Your task to perform on an android device: Open wifi settings Image 0: 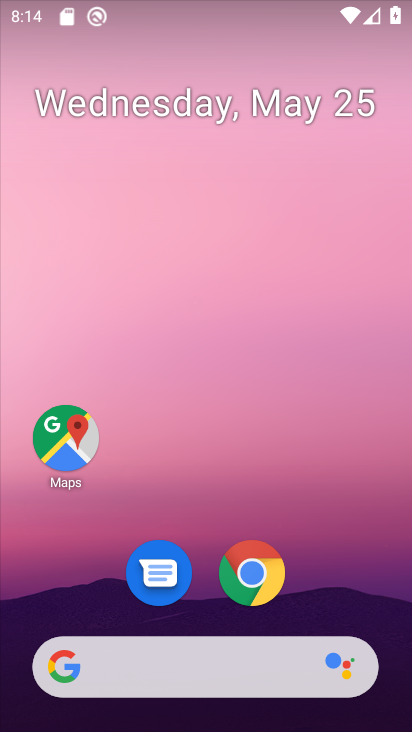
Step 0: drag from (381, 714) to (310, 269)
Your task to perform on an android device: Open wifi settings Image 1: 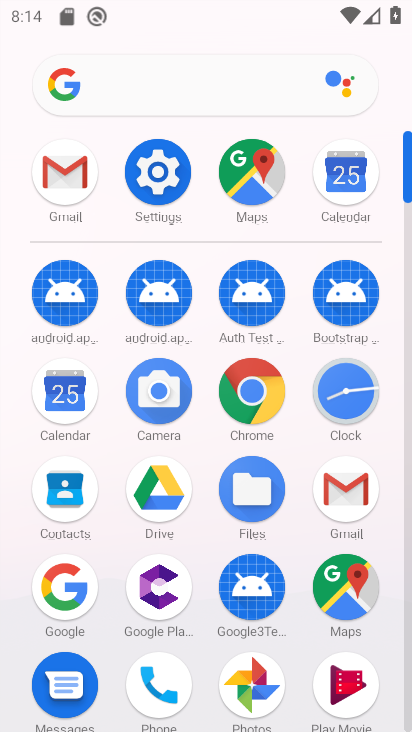
Step 1: click (162, 165)
Your task to perform on an android device: Open wifi settings Image 2: 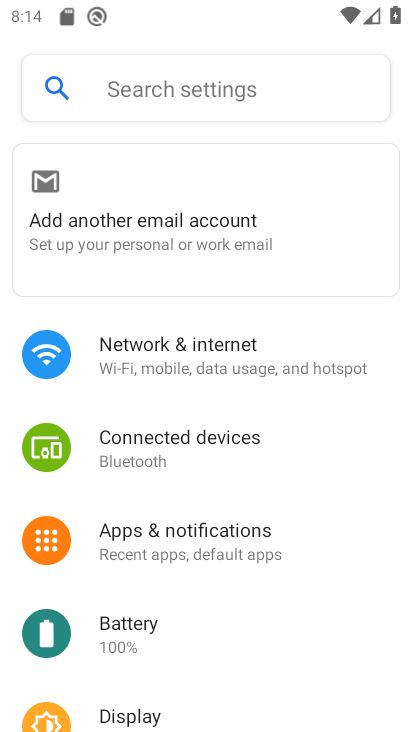
Step 2: drag from (221, 697) to (234, 401)
Your task to perform on an android device: Open wifi settings Image 3: 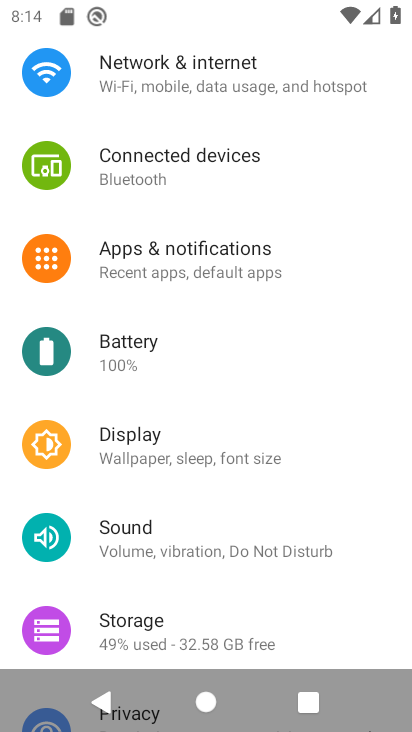
Step 3: drag from (228, 633) to (239, 369)
Your task to perform on an android device: Open wifi settings Image 4: 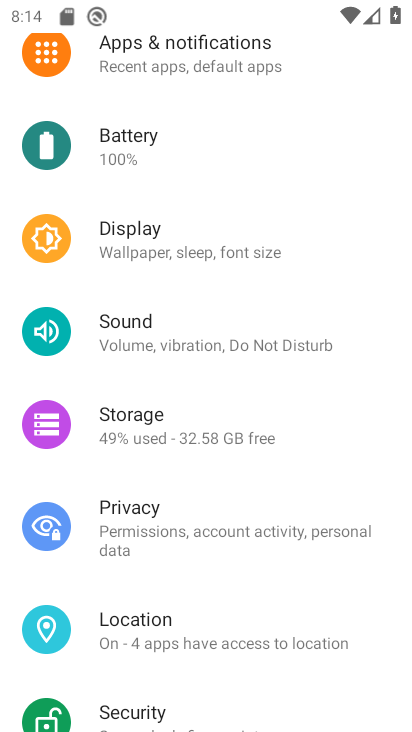
Step 4: drag from (287, 192) to (278, 579)
Your task to perform on an android device: Open wifi settings Image 5: 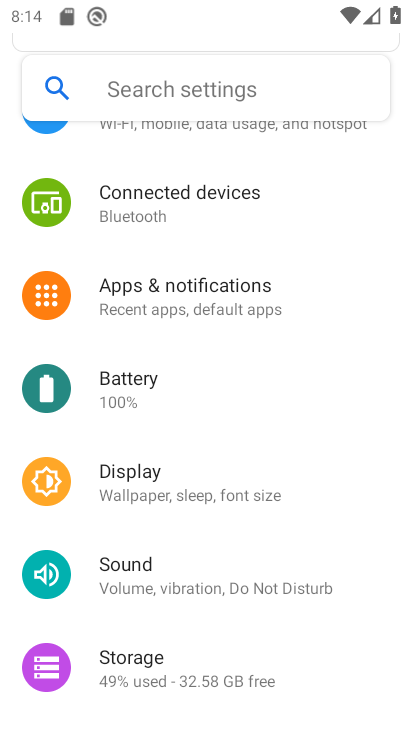
Step 5: drag from (306, 191) to (324, 506)
Your task to perform on an android device: Open wifi settings Image 6: 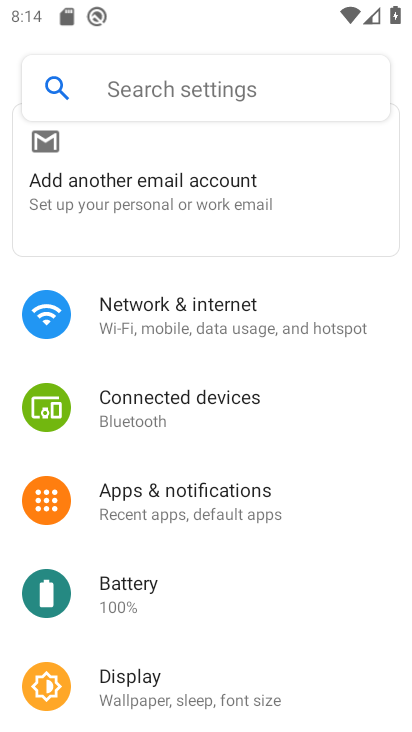
Step 6: click (128, 311)
Your task to perform on an android device: Open wifi settings Image 7: 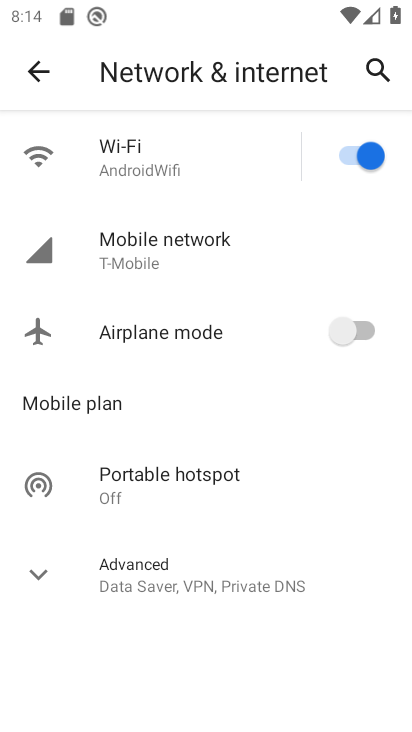
Step 7: click (206, 171)
Your task to perform on an android device: Open wifi settings Image 8: 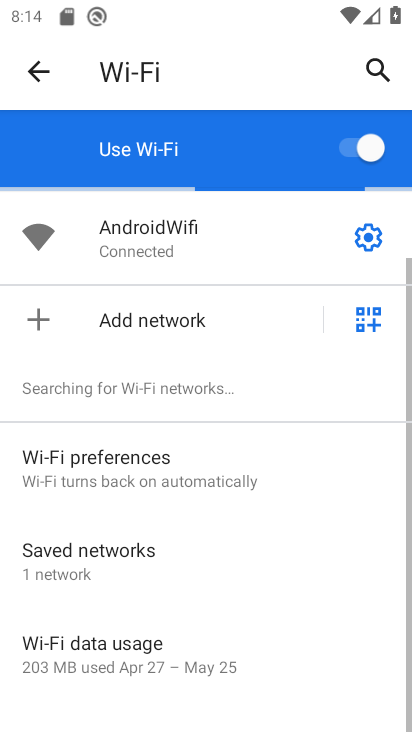
Step 8: click (358, 237)
Your task to perform on an android device: Open wifi settings Image 9: 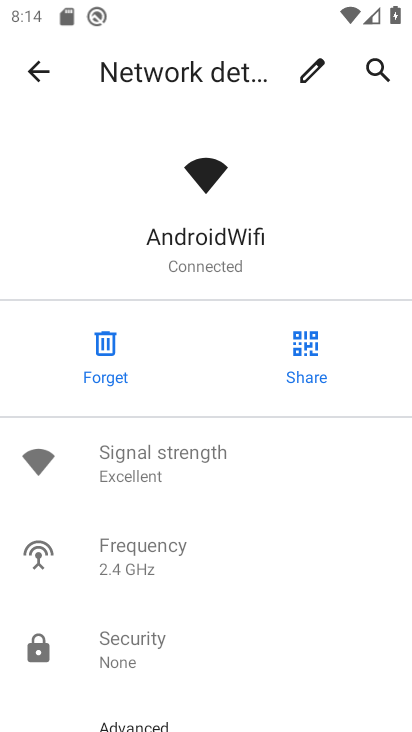
Step 9: task complete